Your task to perform on an android device: Look up the best rated wireless earbuds on Ali Express Image 0: 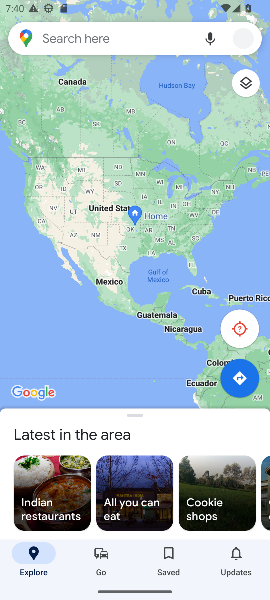
Step 0: press home button
Your task to perform on an android device: Look up the best rated wireless earbuds on Ali Express Image 1: 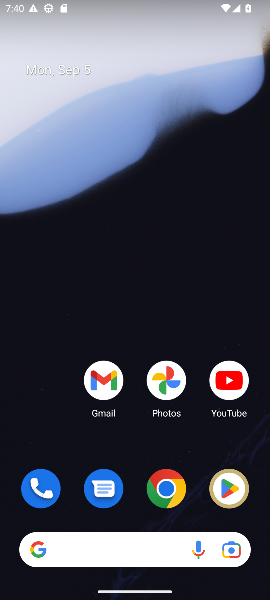
Step 1: click (167, 493)
Your task to perform on an android device: Look up the best rated wireless earbuds on Ali Express Image 2: 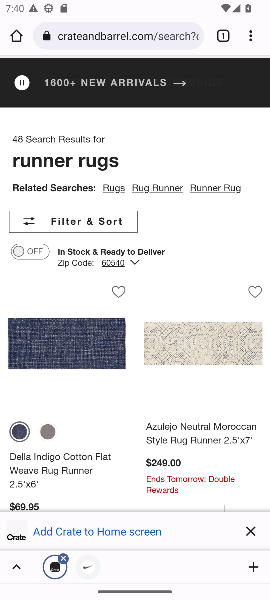
Step 2: click (154, 31)
Your task to perform on an android device: Look up the best rated wireless earbuds on Ali Express Image 3: 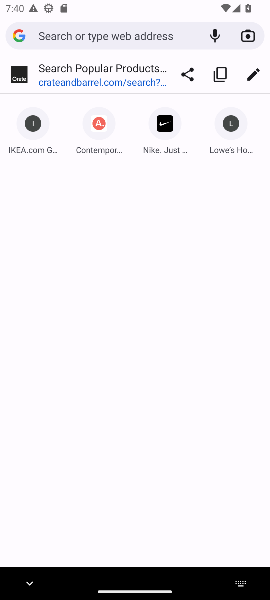
Step 3: type "aliexpress"
Your task to perform on an android device: Look up the best rated wireless earbuds on Ali Express Image 4: 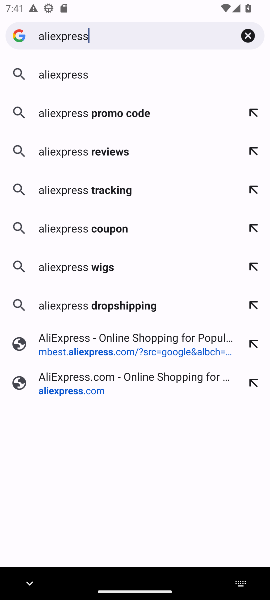
Step 4: press enter
Your task to perform on an android device: Look up the best rated wireless earbuds on Ali Express Image 5: 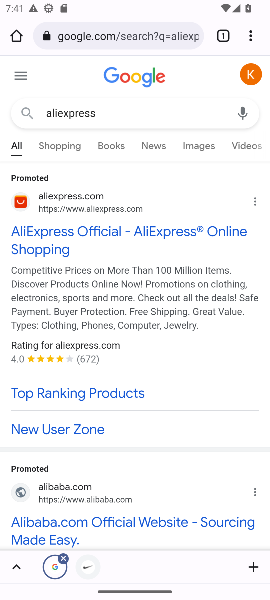
Step 5: click (150, 231)
Your task to perform on an android device: Look up the best rated wireless earbuds on Ali Express Image 6: 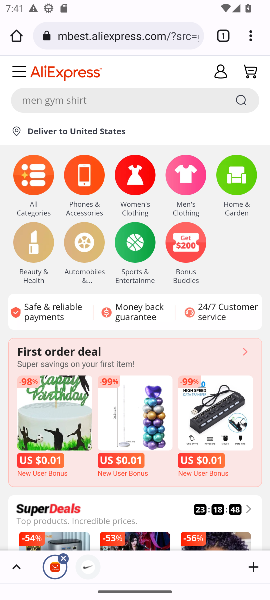
Step 6: click (81, 92)
Your task to perform on an android device: Look up the best rated wireless earbuds on Ali Express Image 7: 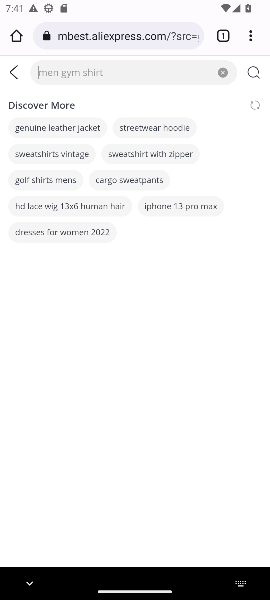
Step 7: type "wireless earbuds"
Your task to perform on an android device: Look up the best rated wireless earbuds on Ali Express Image 8: 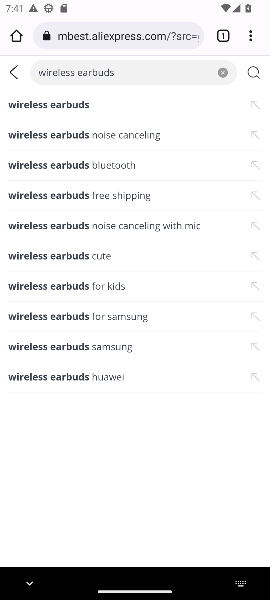
Step 8: press enter
Your task to perform on an android device: Look up the best rated wireless earbuds on Ali Express Image 9: 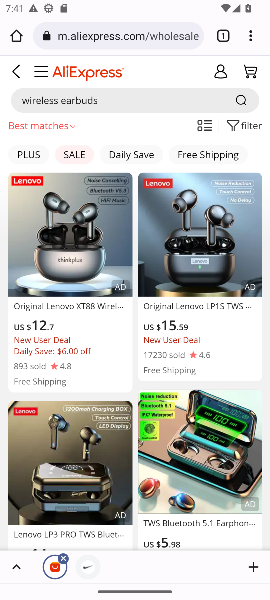
Step 9: drag from (185, 267) to (185, 298)
Your task to perform on an android device: Look up the best rated wireless earbuds on Ali Express Image 10: 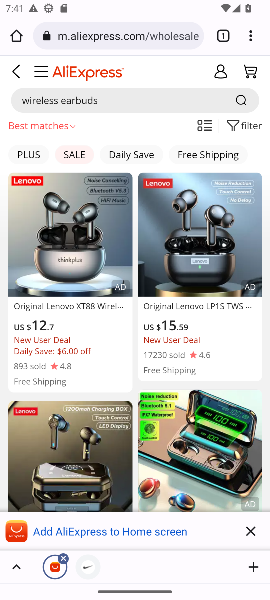
Step 10: click (243, 131)
Your task to perform on an android device: Look up the best rated wireless earbuds on Ali Express Image 11: 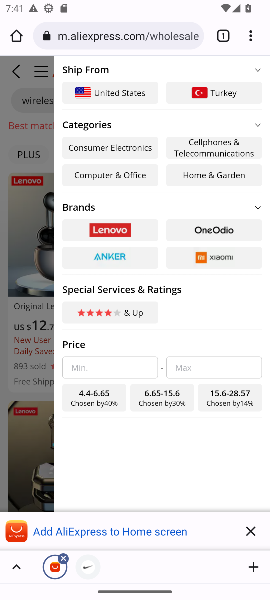
Step 11: click (122, 318)
Your task to perform on an android device: Look up the best rated wireless earbuds on Ali Express Image 12: 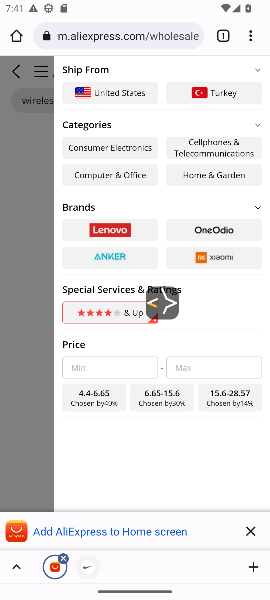
Step 12: click (256, 530)
Your task to perform on an android device: Look up the best rated wireless earbuds on Ali Express Image 13: 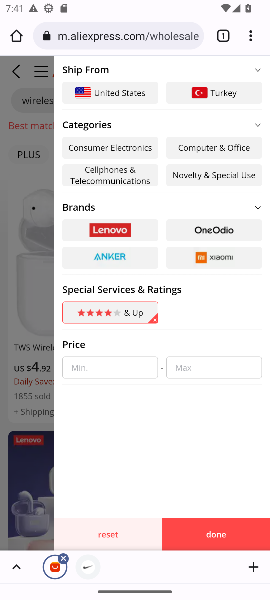
Step 13: click (246, 535)
Your task to perform on an android device: Look up the best rated wireless earbuds on Ali Express Image 14: 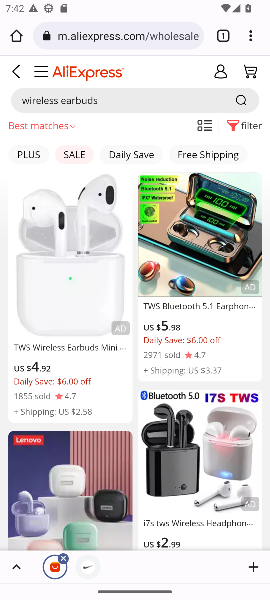
Step 14: drag from (181, 240) to (219, 172)
Your task to perform on an android device: Look up the best rated wireless earbuds on Ali Express Image 15: 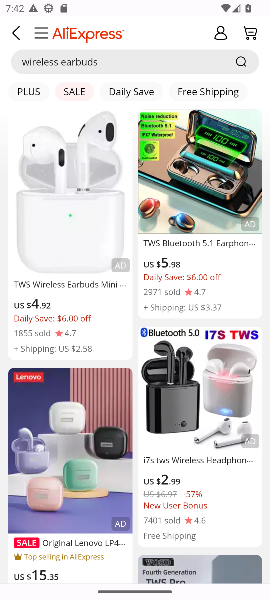
Step 15: drag from (151, 285) to (176, 132)
Your task to perform on an android device: Look up the best rated wireless earbuds on Ali Express Image 16: 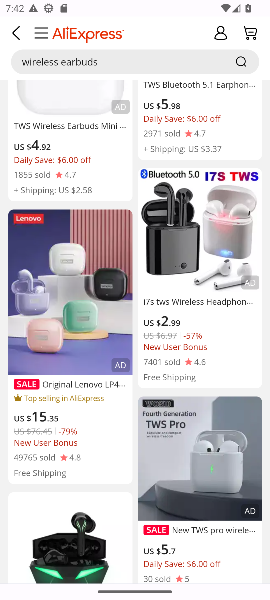
Step 16: drag from (147, 275) to (154, 459)
Your task to perform on an android device: Look up the best rated wireless earbuds on Ali Express Image 17: 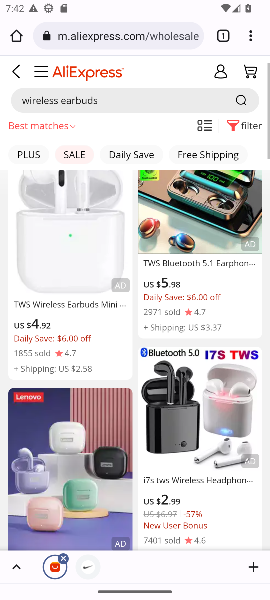
Step 17: drag from (138, 411) to (175, 517)
Your task to perform on an android device: Look up the best rated wireless earbuds on Ali Express Image 18: 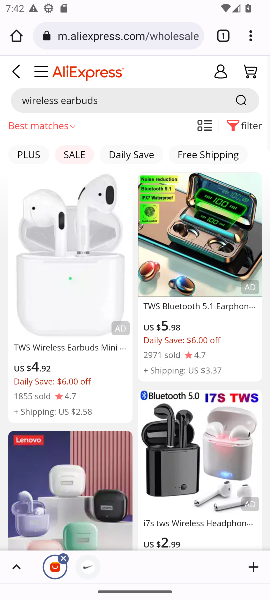
Step 18: drag from (93, 239) to (65, 350)
Your task to perform on an android device: Look up the best rated wireless earbuds on Ali Express Image 19: 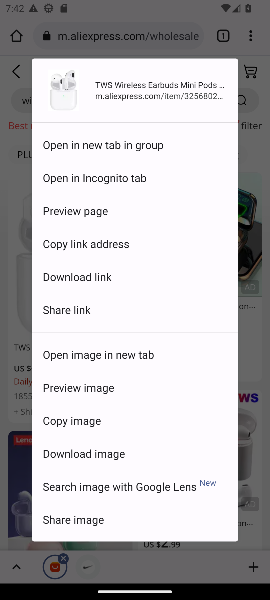
Step 19: click (256, 310)
Your task to perform on an android device: Look up the best rated wireless earbuds on Ali Express Image 20: 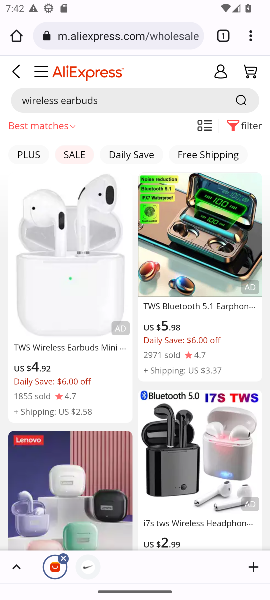
Step 20: task complete